Your task to perform on an android device: Go to accessibility settings Image 0: 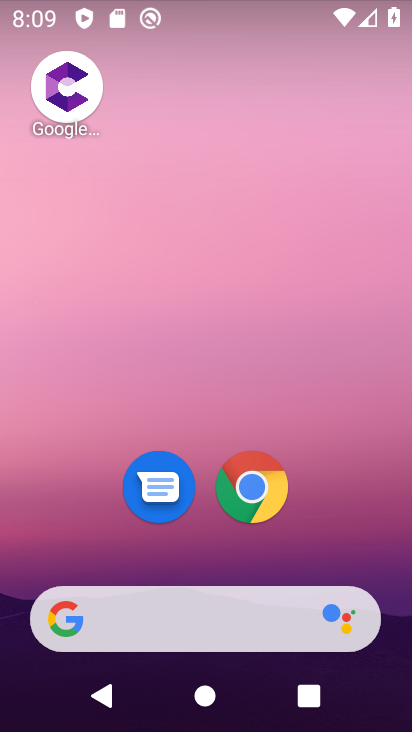
Step 0: drag from (197, 562) to (353, 7)
Your task to perform on an android device: Go to accessibility settings Image 1: 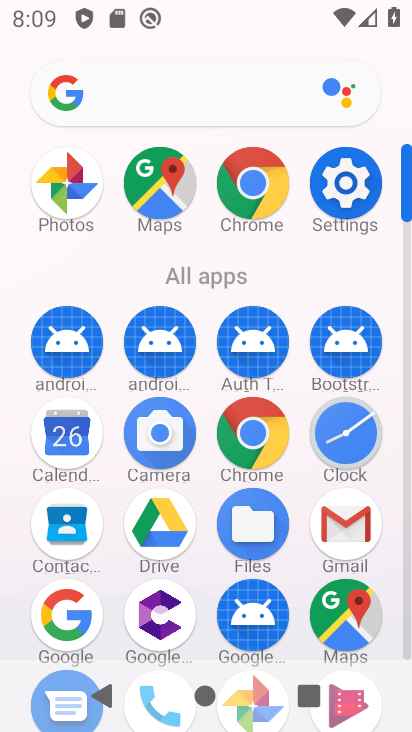
Step 1: click (329, 180)
Your task to perform on an android device: Go to accessibility settings Image 2: 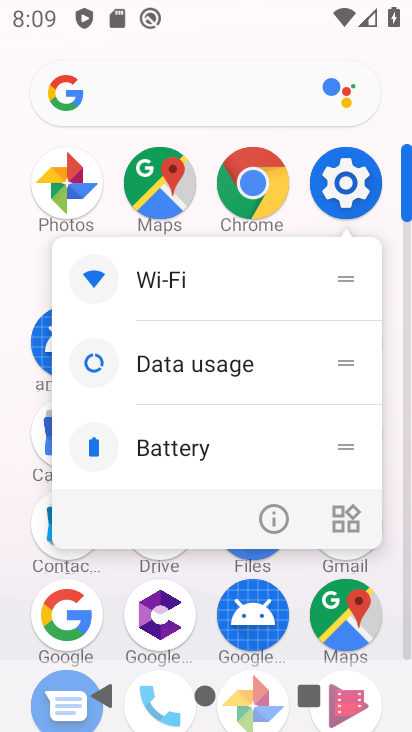
Step 2: click (335, 187)
Your task to perform on an android device: Go to accessibility settings Image 3: 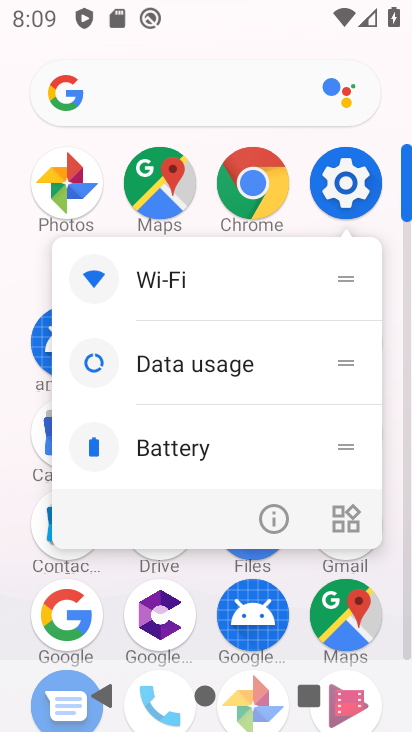
Step 3: click (346, 173)
Your task to perform on an android device: Go to accessibility settings Image 4: 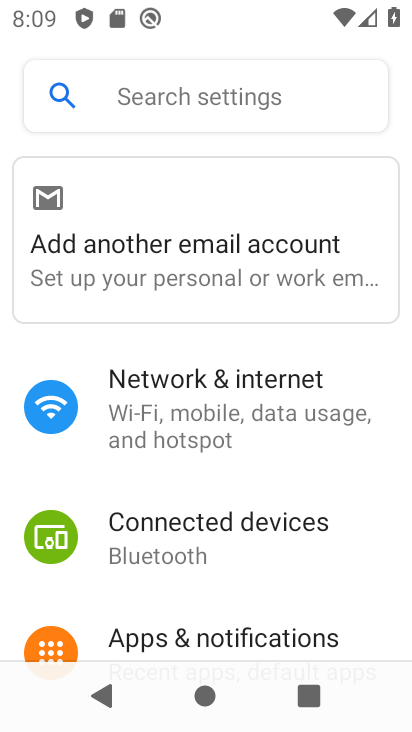
Step 4: drag from (167, 560) to (318, 57)
Your task to perform on an android device: Go to accessibility settings Image 5: 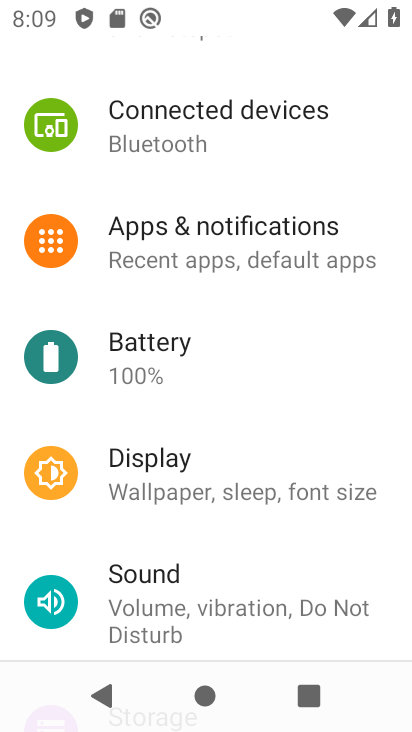
Step 5: drag from (175, 613) to (249, 82)
Your task to perform on an android device: Go to accessibility settings Image 6: 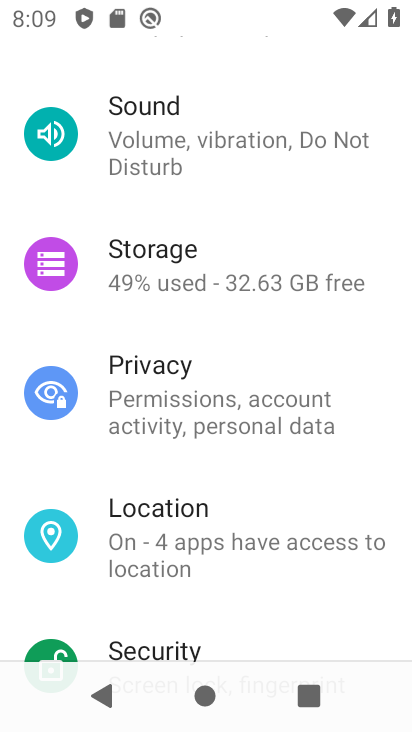
Step 6: drag from (188, 604) to (264, 98)
Your task to perform on an android device: Go to accessibility settings Image 7: 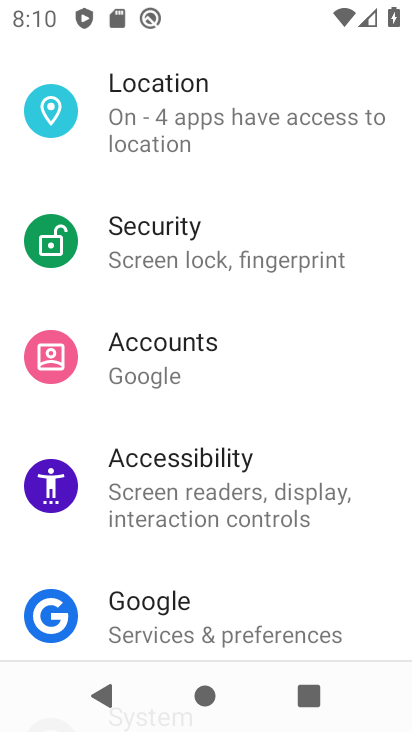
Step 7: click (228, 485)
Your task to perform on an android device: Go to accessibility settings Image 8: 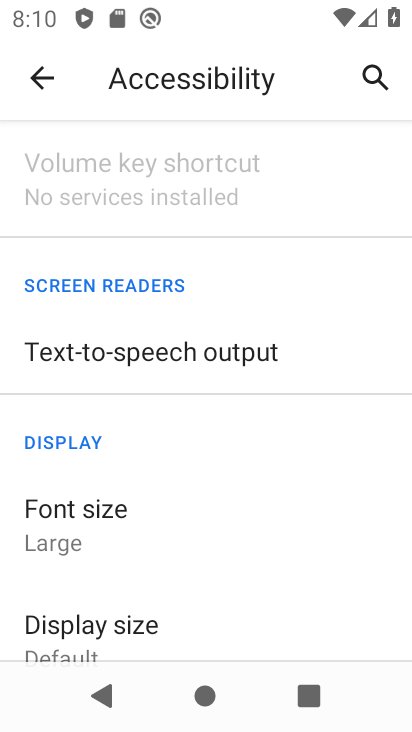
Step 8: task complete